Your task to perform on an android device: Clear the shopping cart on target. Add "usb-b" to the cart on target Image 0: 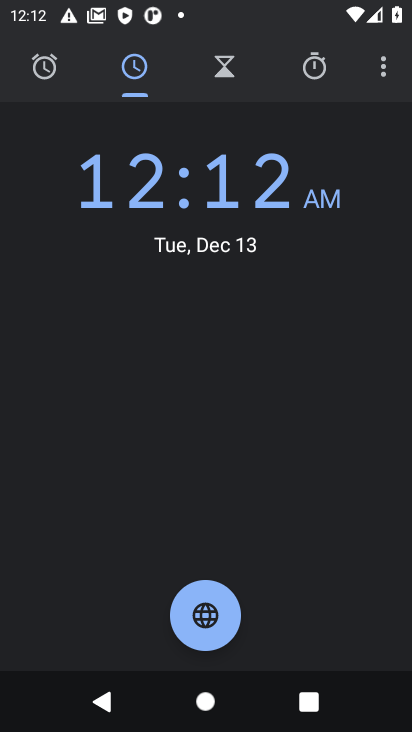
Step 0: press home button
Your task to perform on an android device: Clear the shopping cart on target. Add "usb-b" to the cart on target Image 1: 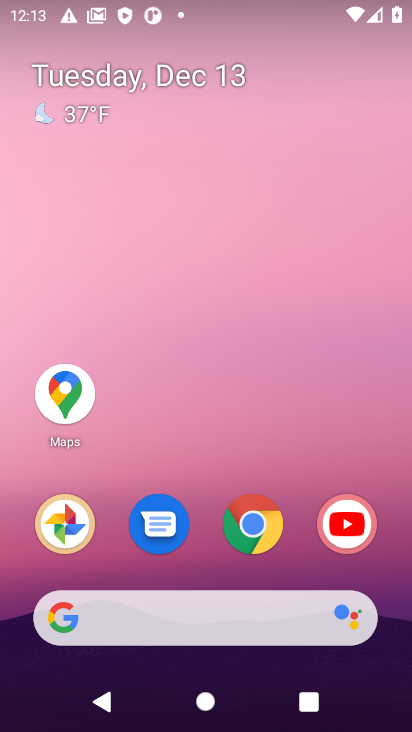
Step 1: click (255, 527)
Your task to perform on an android device: Clear the shopping cart on target. Add "usb-b" to the cart on target Image 2: 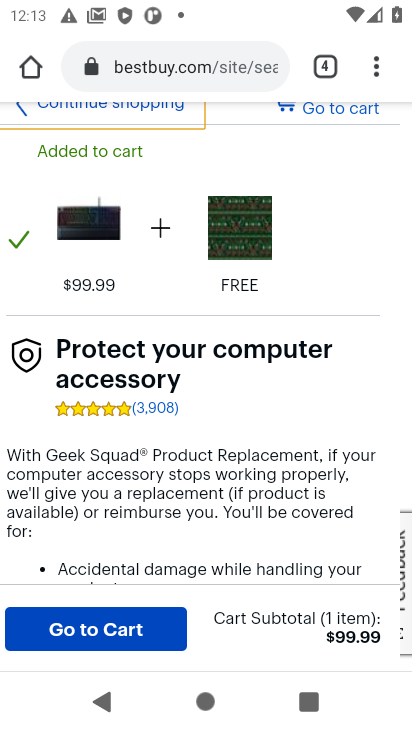
Step 2: click (182, 71)
Your task to perform on an android device: Clear the shopping cart on target. Add "usb-b" to the cart on target Image 3: 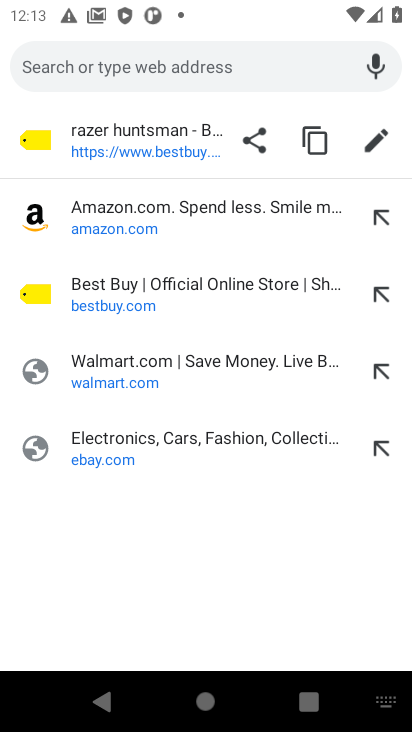
Step 3: type "target.com"
Your task to perform on an android device: Clear the shopping cart on target. Add "usb-b" to the cart on target Image 4: 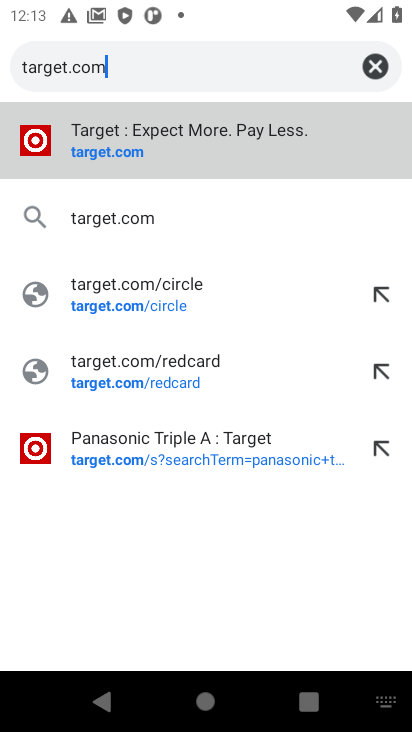
Step 4: click (106, 153)
Your task to perform on an android device: Clear the shopping cart on target. Add "usb-b" to the cart on target Image 5: 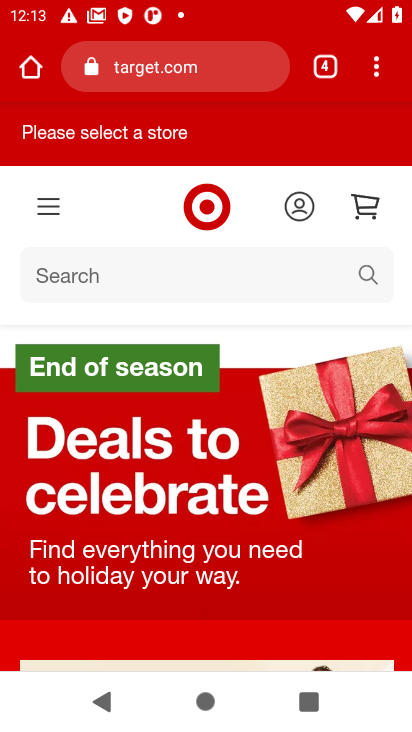
Step 5: click (374, 204)
Your task to perform on an android device: Clear the shopping cart on target. Add "usb-b" to the cart on target Image 6: 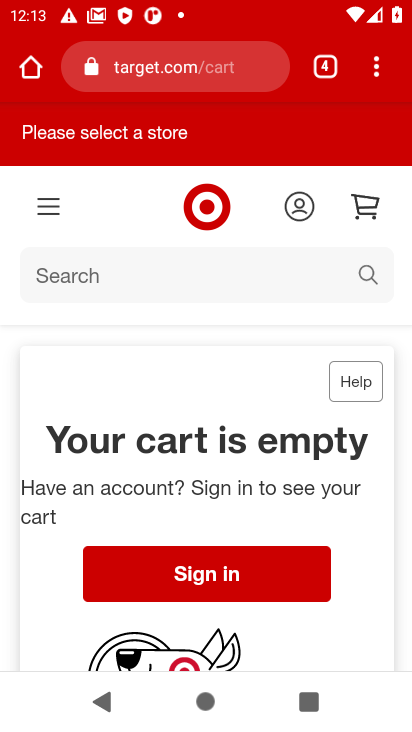
Step 6: click (63, 277)
Your task to perform on an android device: Clear the shopping cart on target. Add "usb-b" to the cart on target Image 7: 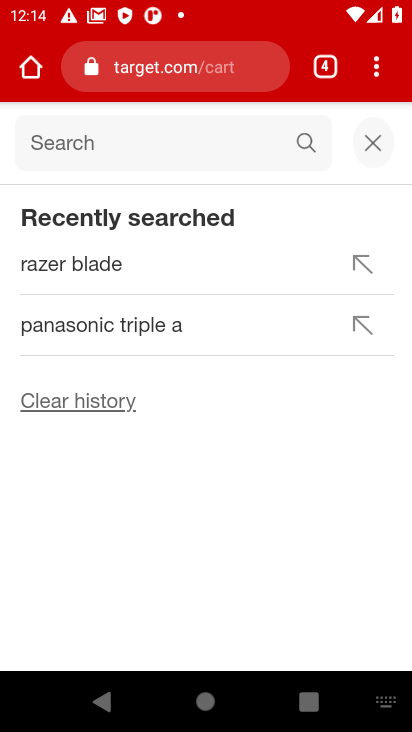
Step 7: type "usb-b"
Your task to perform on an android device: Clear the shopping cart on target. Add "usb-b" to the cart on target Image 8: 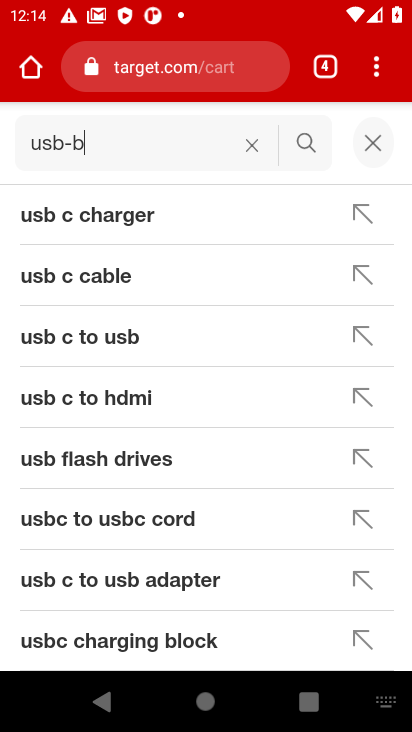
Step 8: click (302, 142)
Your task to perform on an android device: Clear the shopping cart on target. Add "usb-b" to the cart on target Image 9: 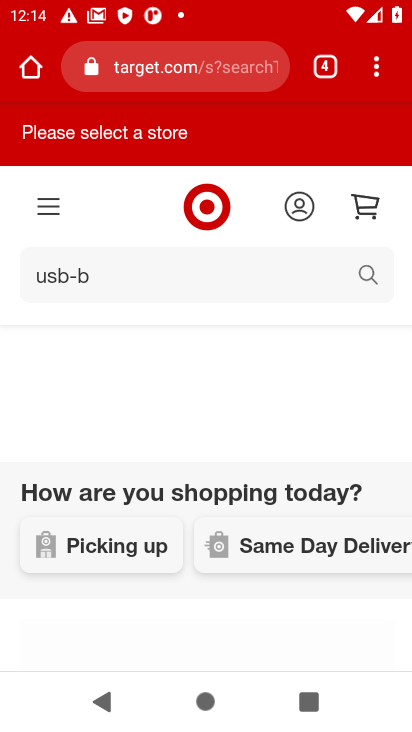
Step 9: task complete